Your task to perform on an android device: Go to Amazon Image 0: 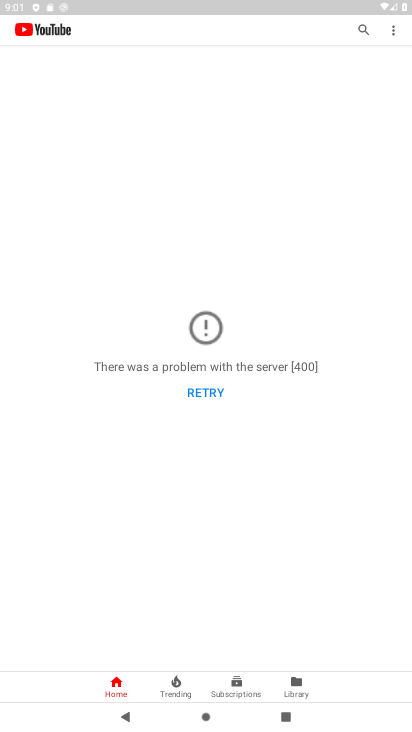
Step 0: press home button
Your task to perform on an android device: Go to Amazon Image 1: 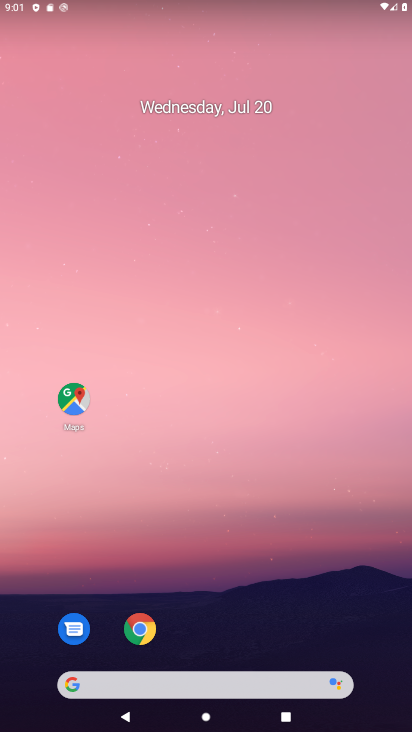
Step 1: drag from (222, 629) to (332, 20)
Your task to perform on an android device: Go to Amazon Image 2: 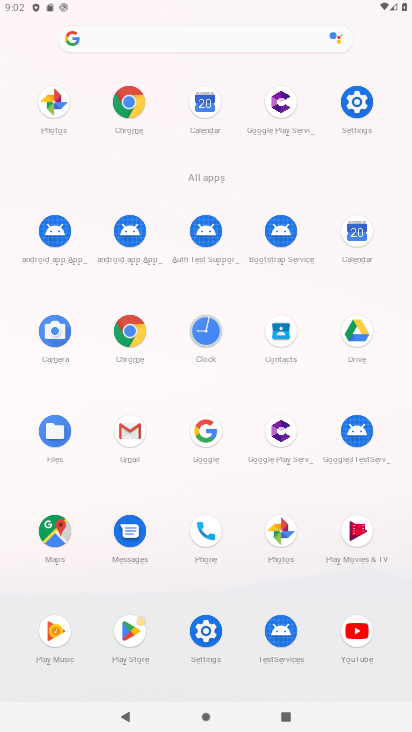
Step 2: click (137, 101)
Your task to perform on an android device: Go to Amazon Image 3: 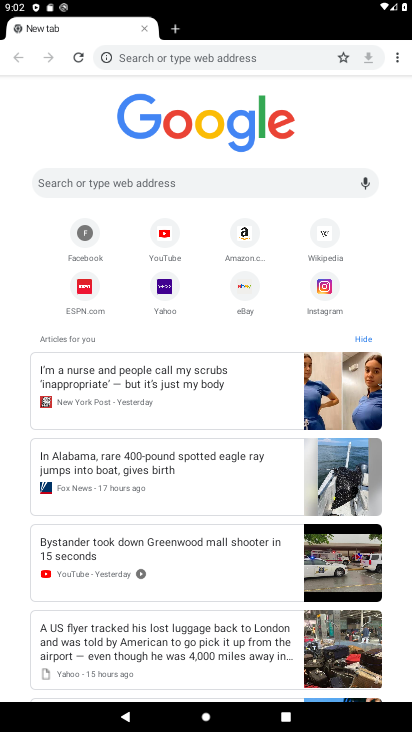
Step 3: click (248, 241)
Your task to perform on an android device: Go to Amazon Image 4: 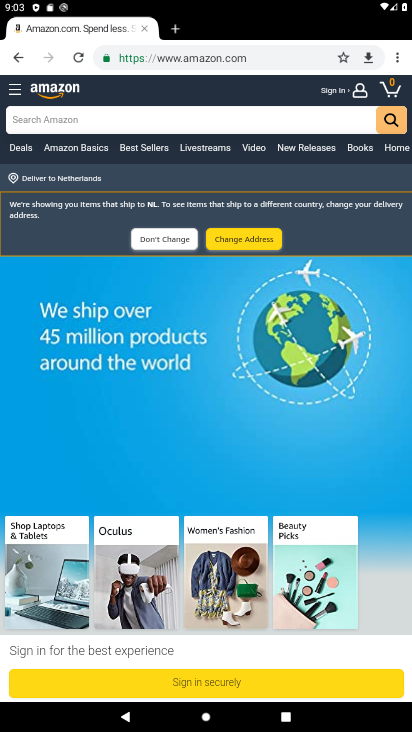
Step 4: task complete